Your task to perform on an android device: Is it going to rain this weekend? Image 0: 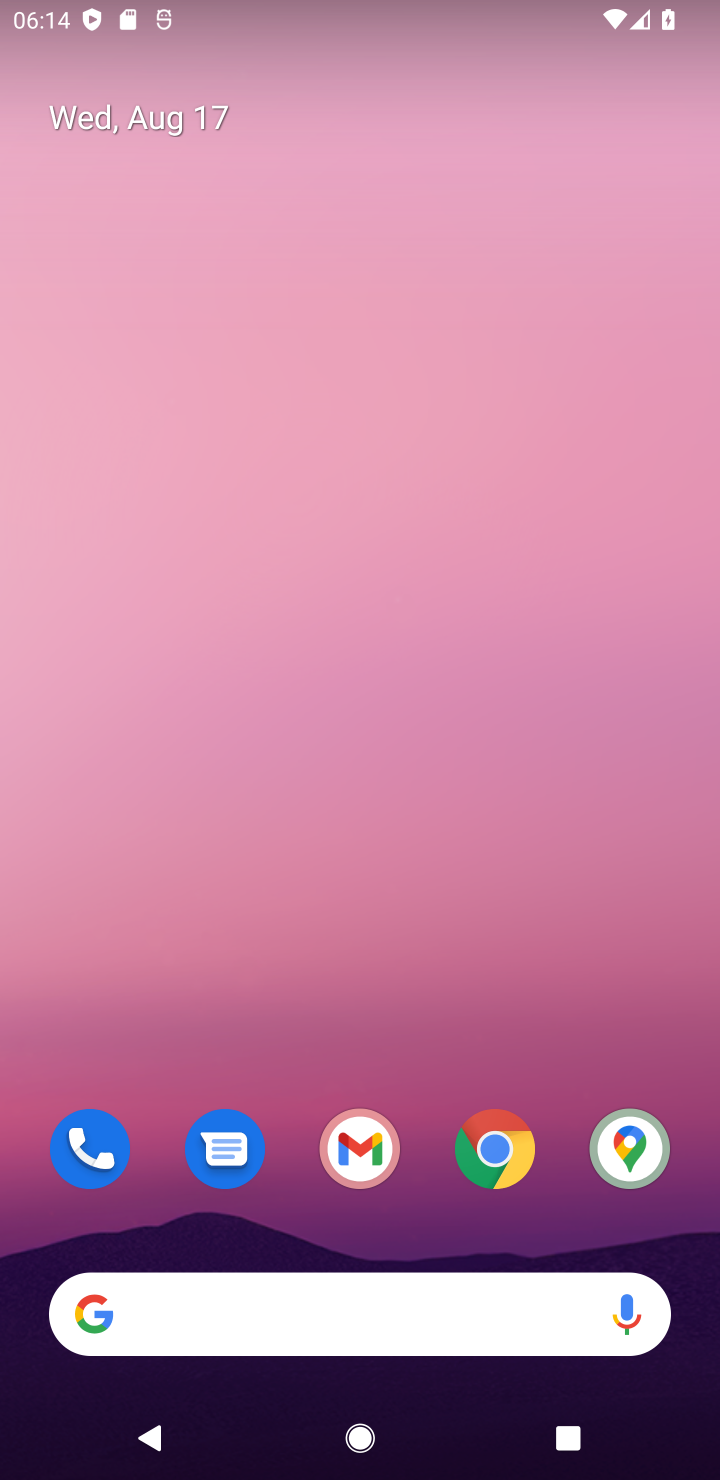
Step 0: click (99, 1321)
Your task to perform on an android device: Is it going to rain this weekend? Image 1: 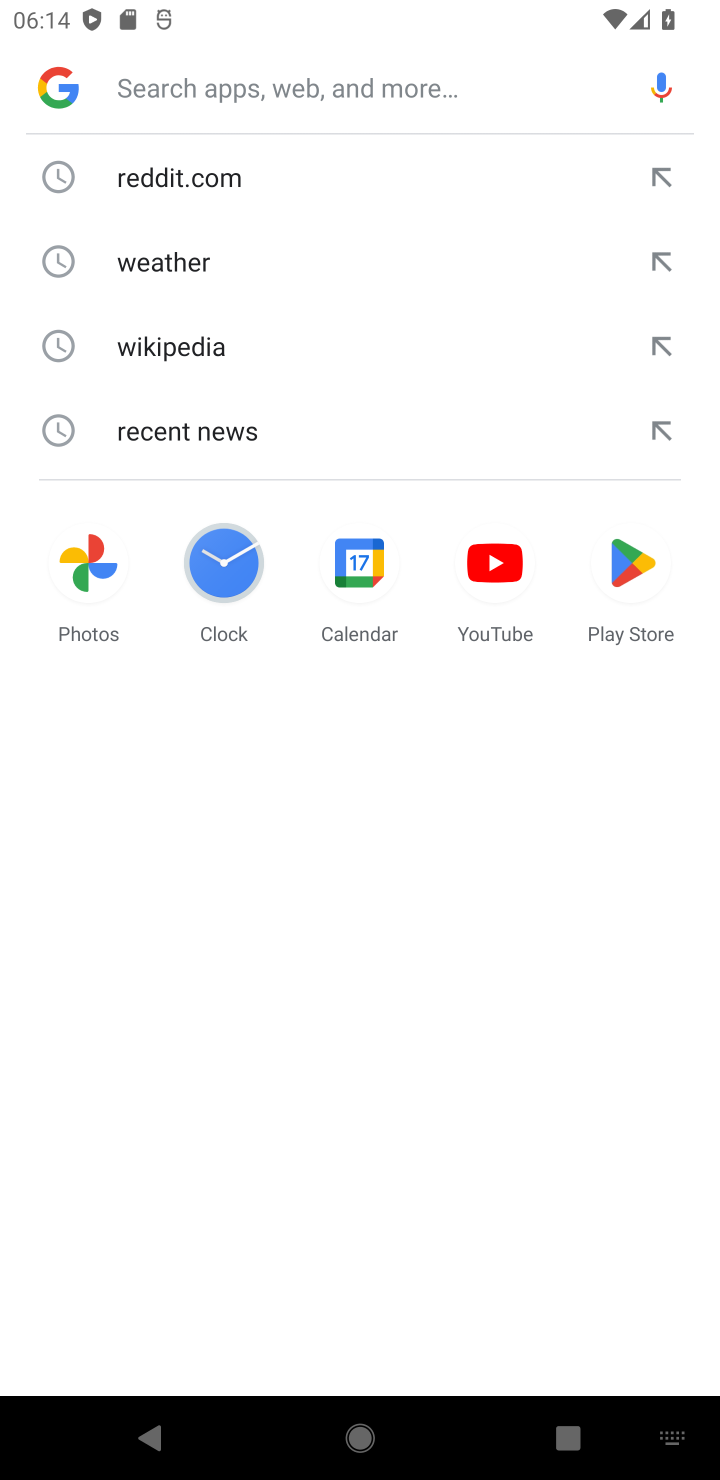
Step 1: click (179, 253)
Your task to perform on an android device: Is it going to rain this weekend? Image 2: 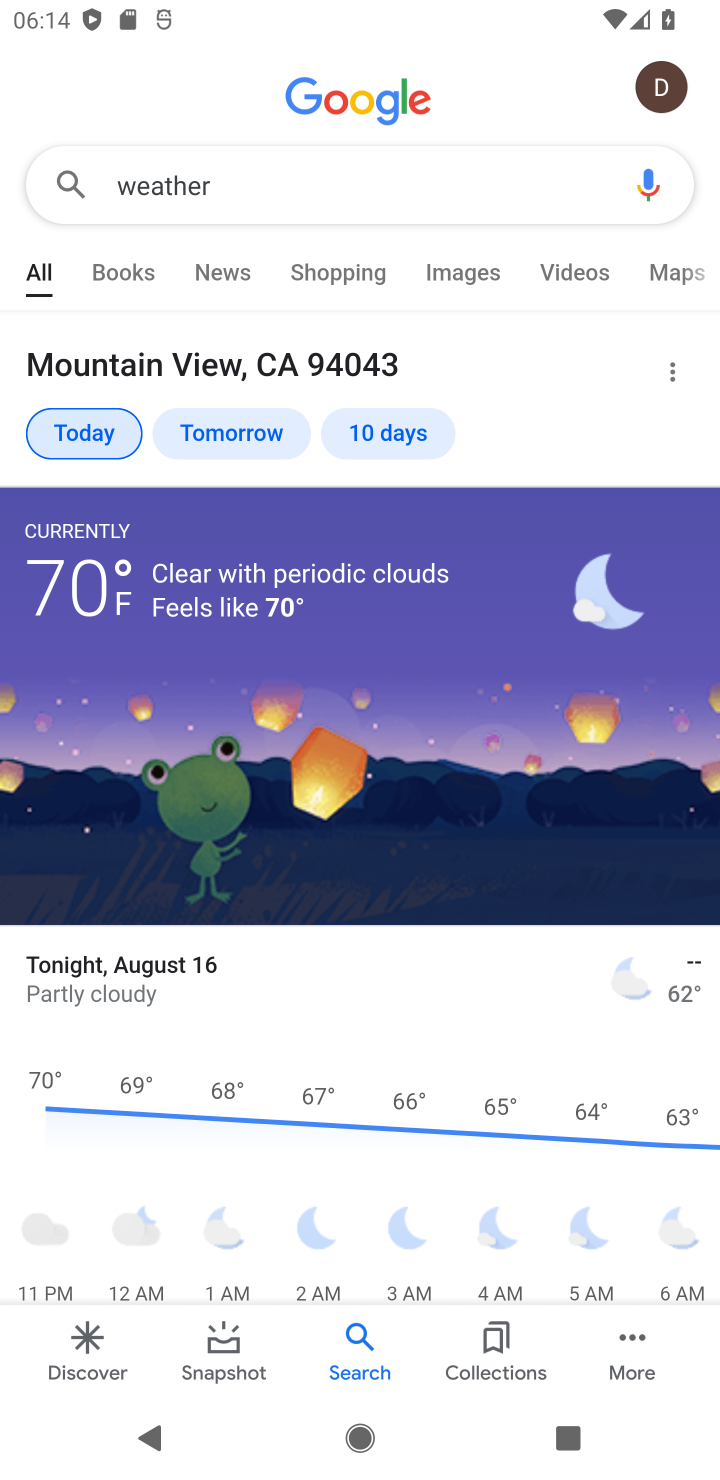
Step 2: click (367, 420)
Your task to perform on an android device: Is it going to rain this weekend? Image 3: 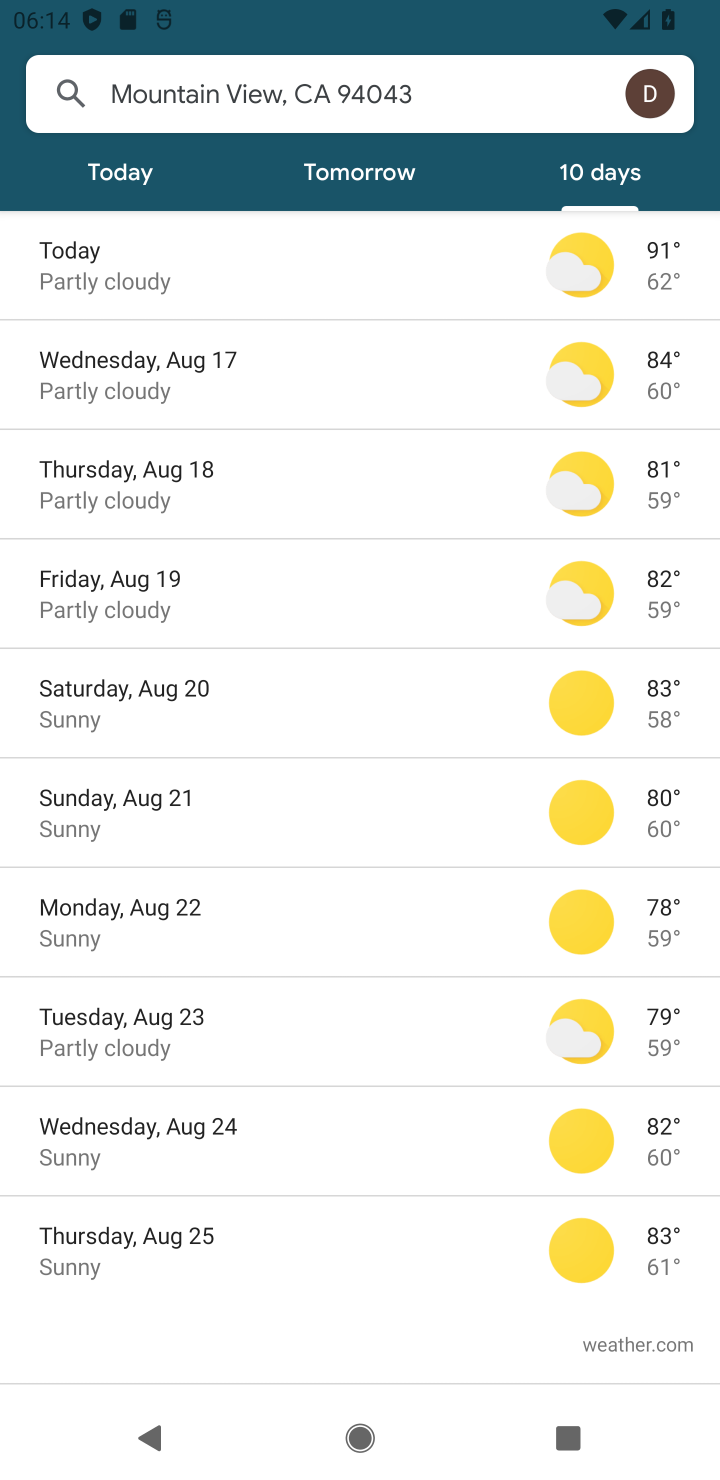
Step 3: task complete